Your task to perform on an android device: Open the calendar and show me this week's events Image 0: 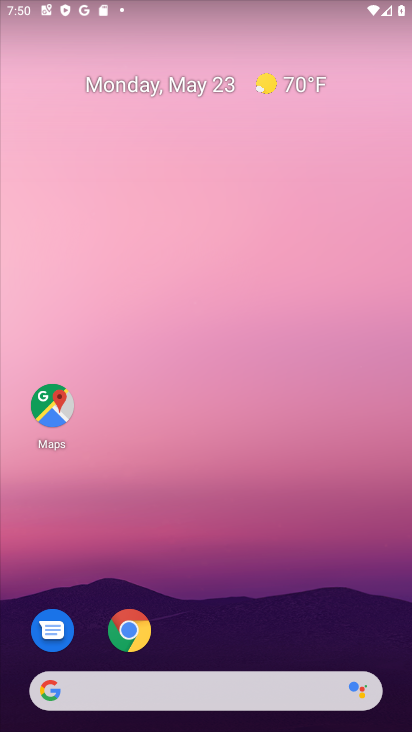
Step 0: drag from (220, 580) to (277, 160)
Your task to perform on an android device: Open the calendar and show me this week's events Image 1: 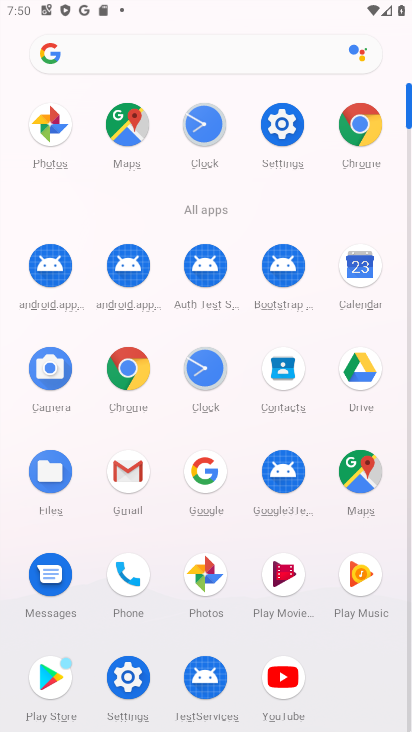
Step 1: click (367, 270)
Your task to perform on an android device: Open the calendar and show me this week's events Image 2: 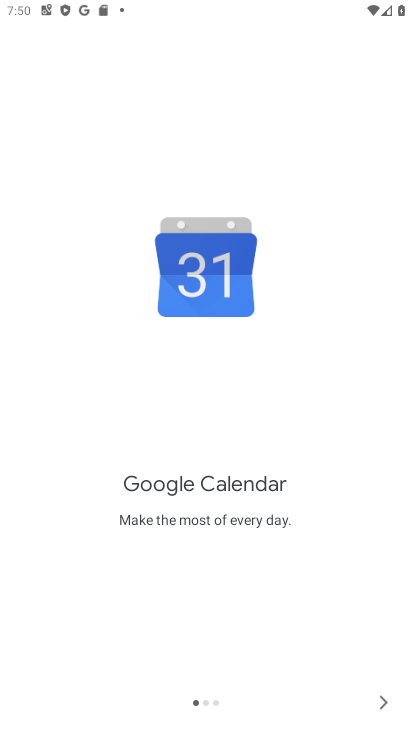
Step 2: click (385, 683)
Your task to perform on an android device: Open the calendar and show me this week's events Image 3: 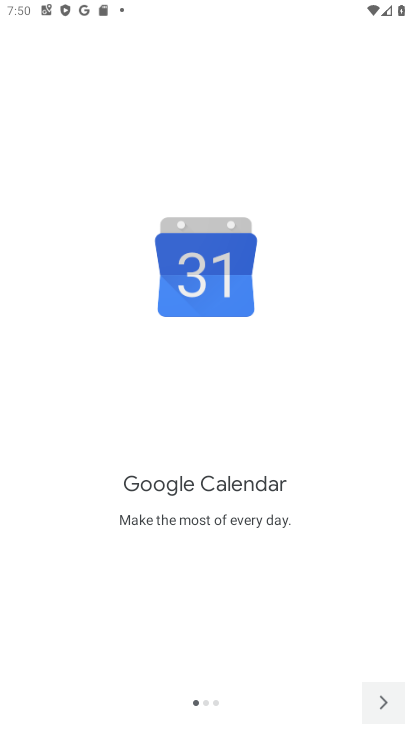
Step 3: click (388, 696)
Your task to perform on an android device: Open the calendar and show me this week's events Image 4: 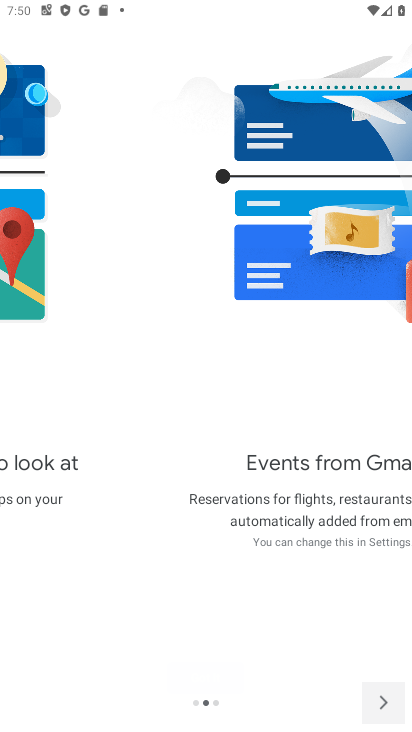
Step 4: click (389, 697)
Your task to perform on an android device: Open the calendar and show me this week's events Image 5: 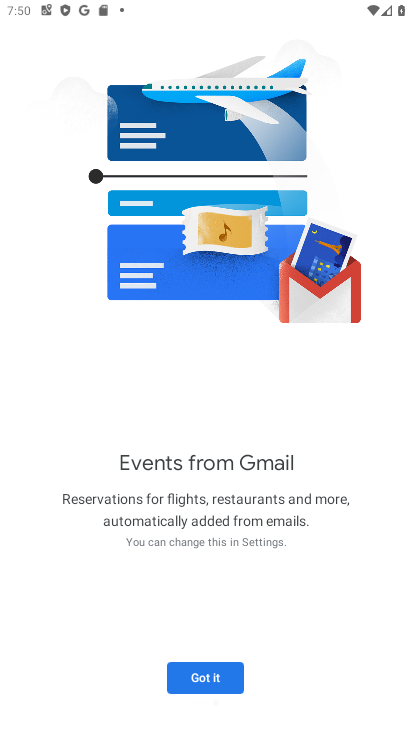
Step 5: click (390, 695)
Your task to perform on an android device: Open the calendar and show me this week's events Image 6: 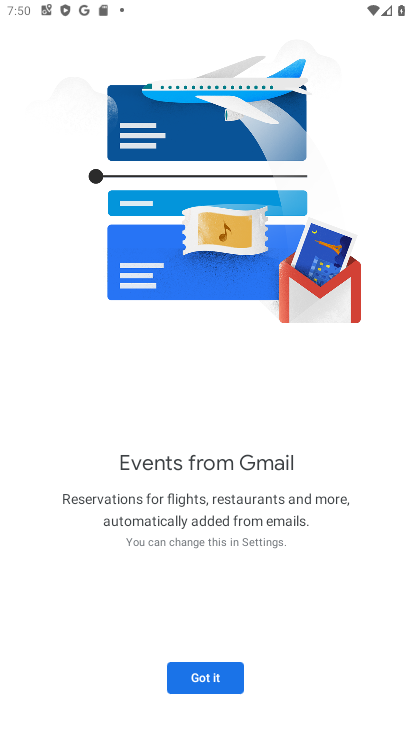
Step 6: click (218, 682)
Your task to perform on an android device: Open the calendar and show me this week's events Image 7: 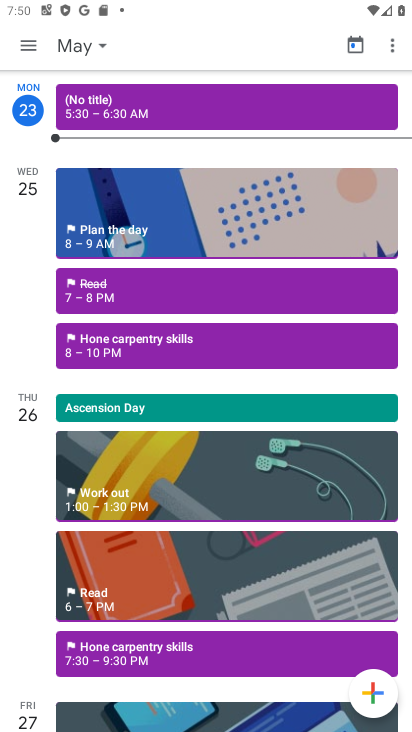
Step 7: click (34, 42)
Your task to perform on an android device: Open the calendar and show me this week's events Image 8: 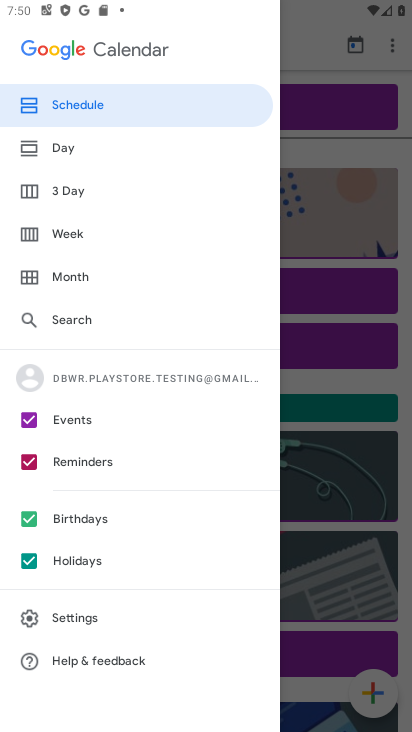
Step 8: click (51, 231)
Your task to perform on an android device: Open the calendar and show me this week's events Image 9: 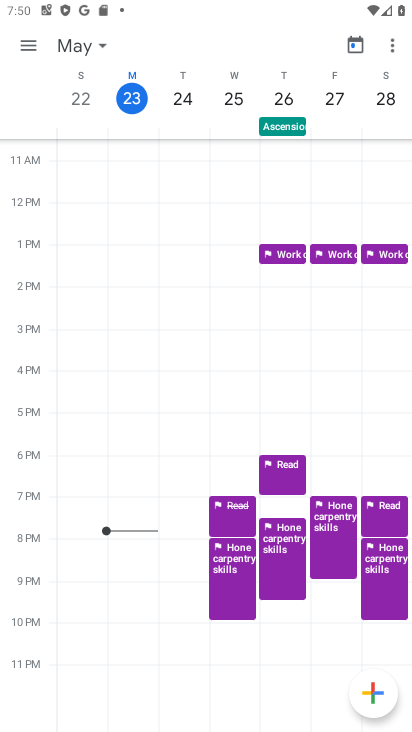
Step 9: task complete